Your task to perform on an android device: visit the assistant section in the google photos Image 0: 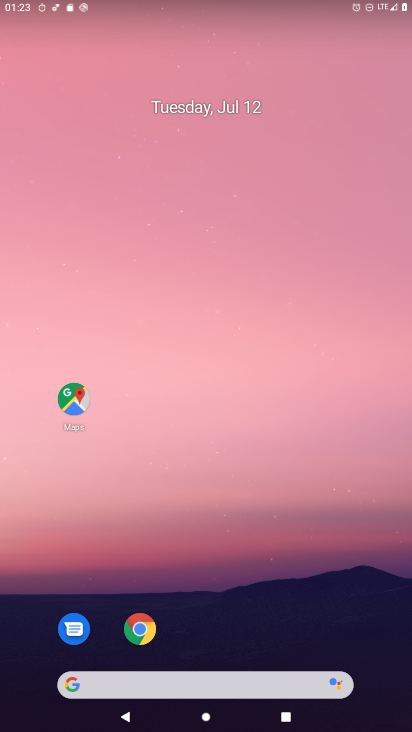
Step 0: drag from (48, 593) to (238, 7)
Your task to perform on an android device: visit the assistant section in the google photos Image 1: 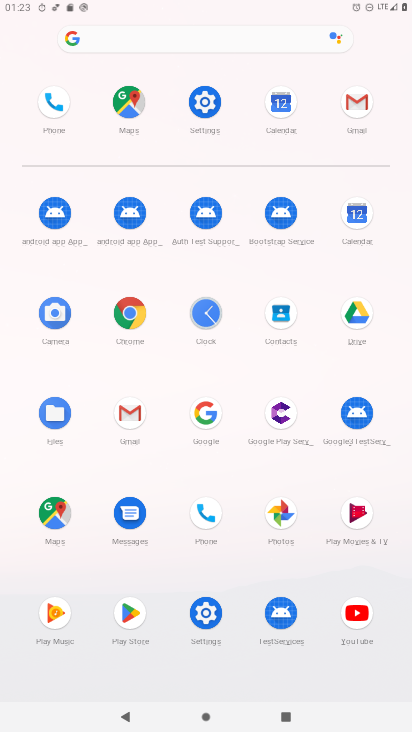
Step 1: click (281, 509)
Your task to perform on an android device: visit the assistant section in the google photos Image 2: 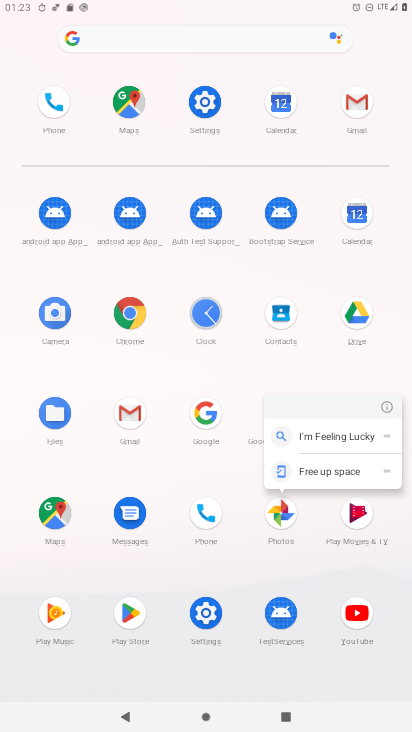
Step 2: click (271, 513)
Your task to perform on an android device: visit the assistant section in the google photos Image 3: 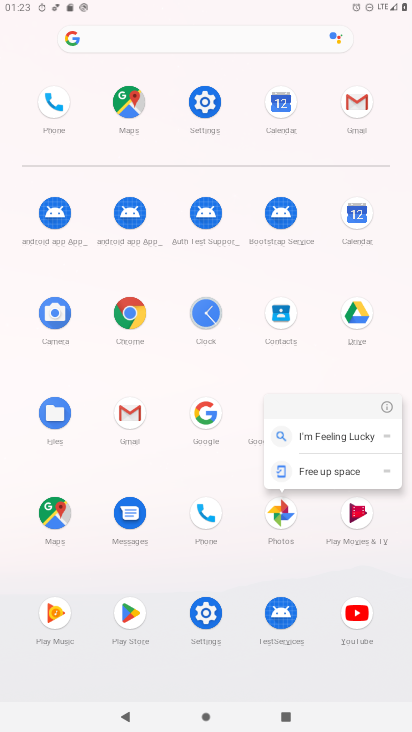
Step 3: click (278, 521)
Your task to perform on an android device: visit the assistant section in the google photos Image 4: 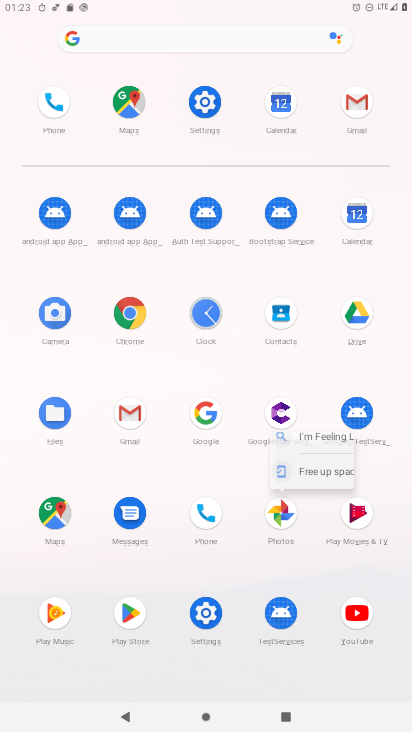
Step 4: click (278, 521)
Your task to perform on an android device: visit the assistant section in the google photos Image 5: 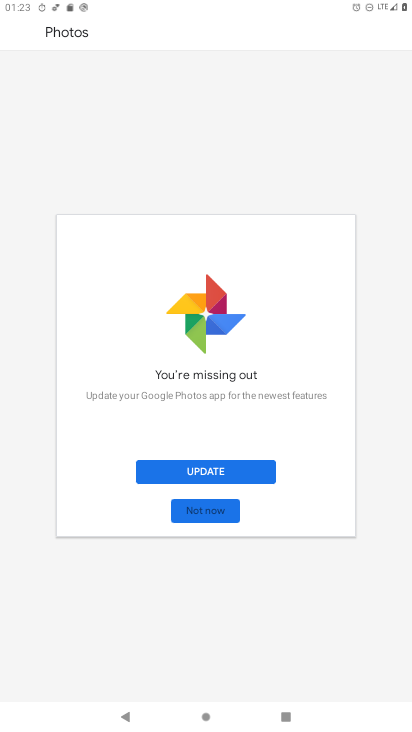
Step 5: click (209, 506)
Your task to perform on an android device: visit the assistant section in the google photos Image 6: 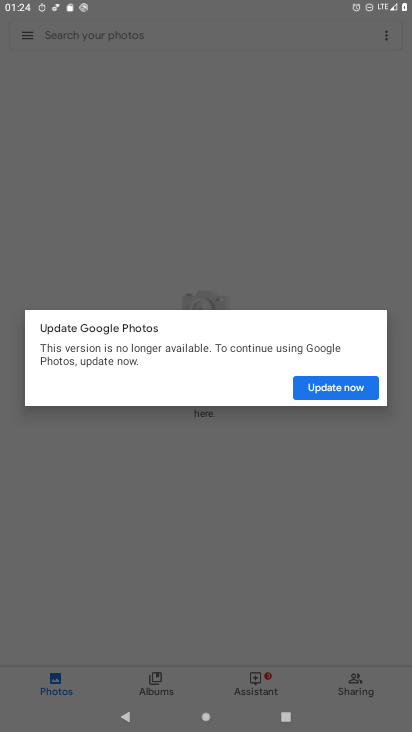
Step 6: click (323, 380)
Your task to perform on an android device: visit the assistant section in the google photos Image 7: 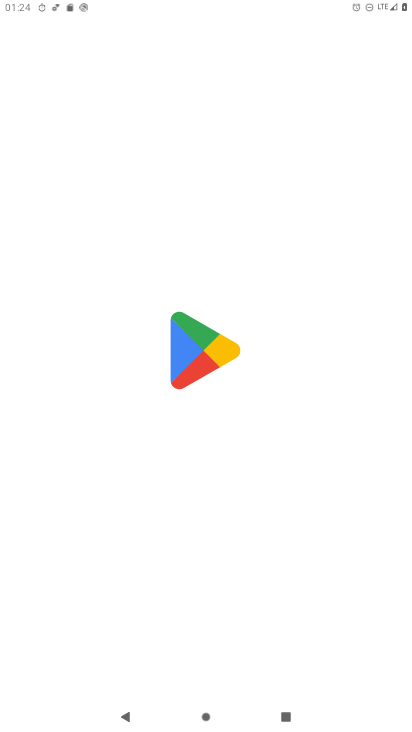
Step 7: click (269, 681)
Your task to perform on an android device: visit the assistant section in the google photos Image 8: 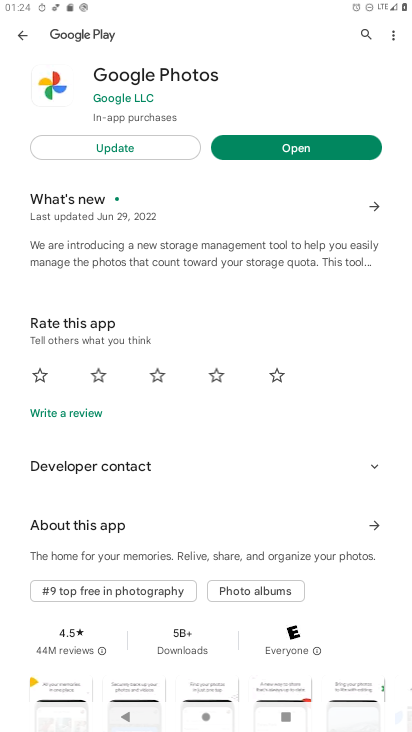
Step 8: click (272, 152)
Your task to perform on an android device: visit the assistant section in the google photos Image 9: 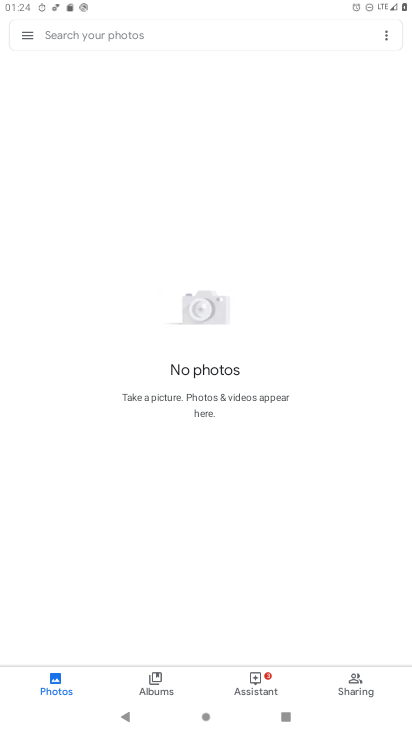
Step 9: click (261, 674)
Your task to perform on an android device: visit the assistant section in the google photos Image 10: 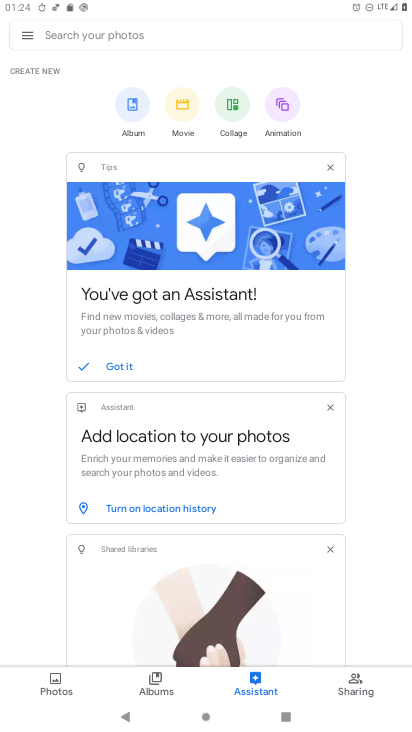
Step 10: task complete